Your task to perform on an android device: create a new album in the google photos Image 0: 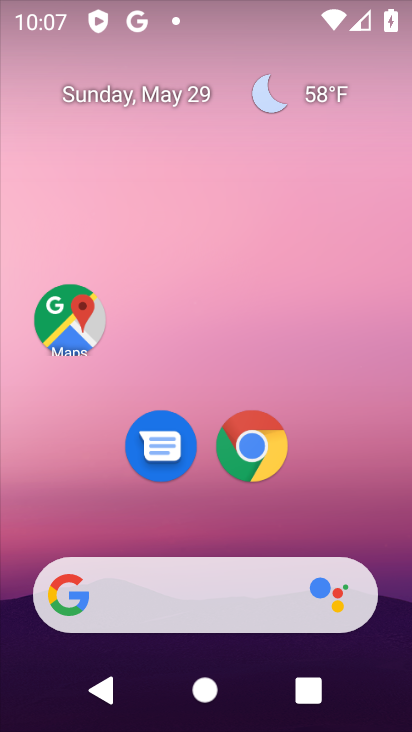
Step 0: drag from (347, 517) to (223, 28)
Your task to perform on an android device: create a new album in the google photos Image 1: 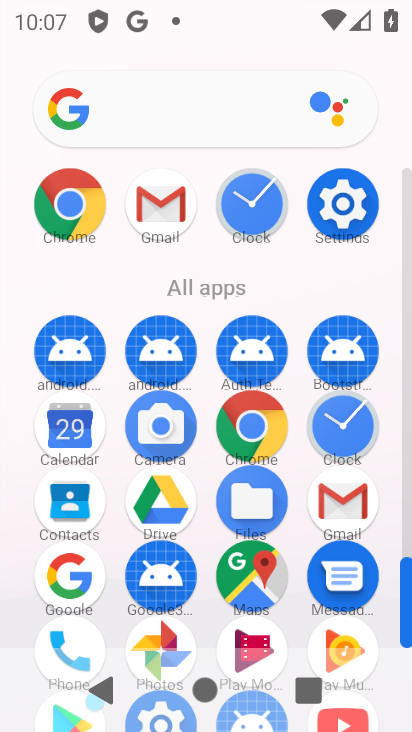
Step 1: drag from (8, 519) to (20, 250)
Your task to perform on an android device: create a new album in the google photos Image 2: 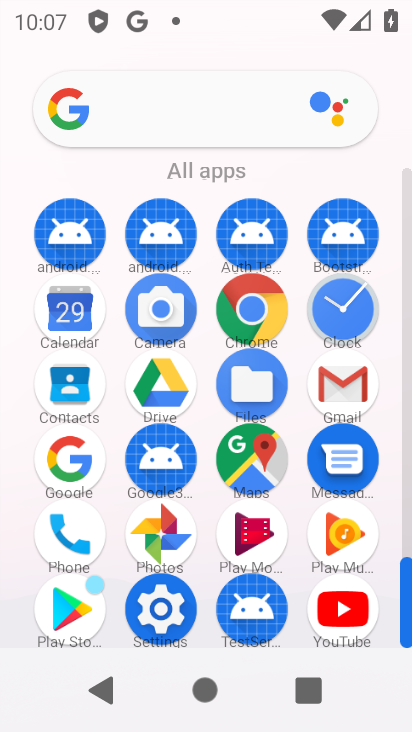
Step 2: click (158, 527)
Your task to perform on an android device: create a new album in the google photos Image 3: 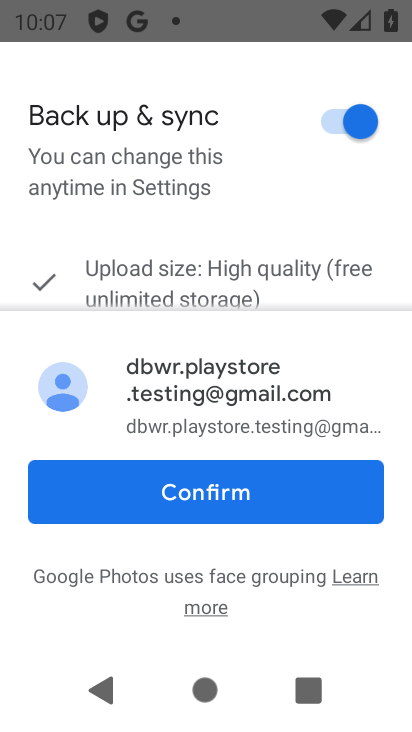
Step 3: click (195, 483)
Your task to perform on an android device: create a new album in the google photos Image 4: 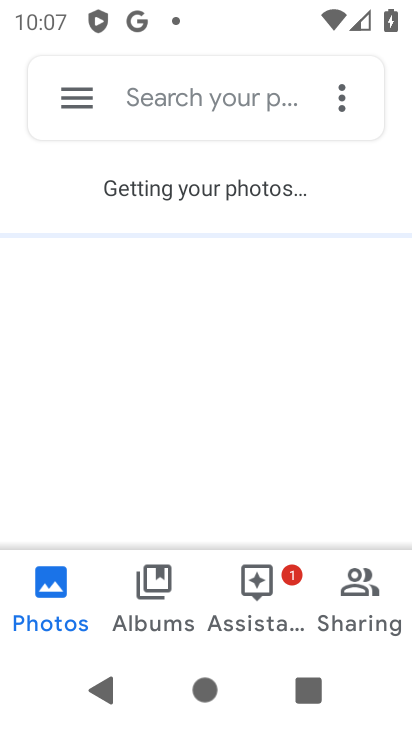
Step 4: drag from (277, 233) to (279, 442)
Your task to perform on an android device: create a new album in the google photos Image 5: 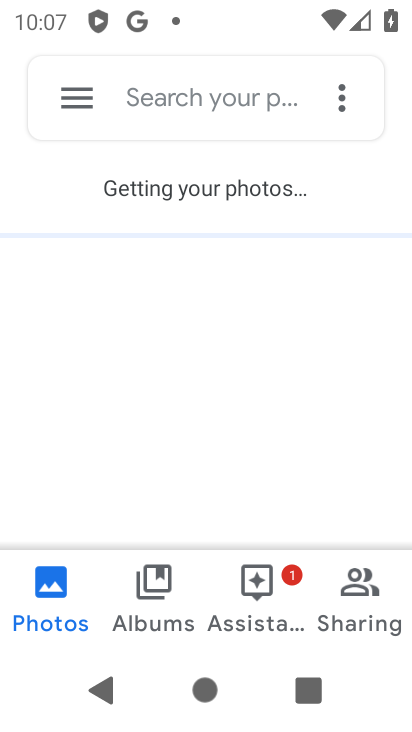
Step 5: drag from (279, 424) to (286, 215)
Your task to perform on an android device: create a new album in the google photos Image 6: 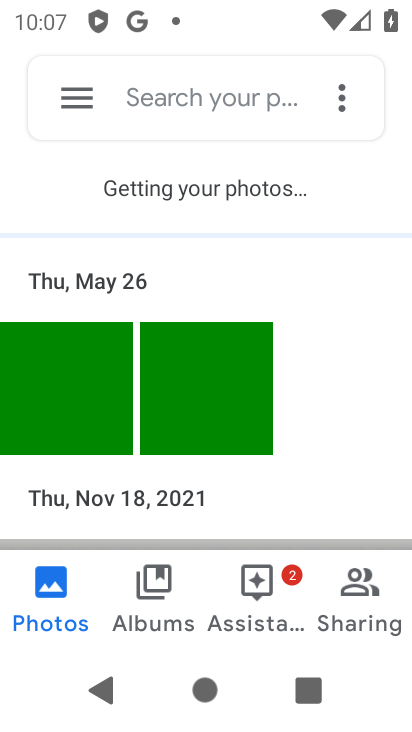
Step 6: click (187, 362)
Your task to perform on an android device: create a new album in the google photos Image 7: 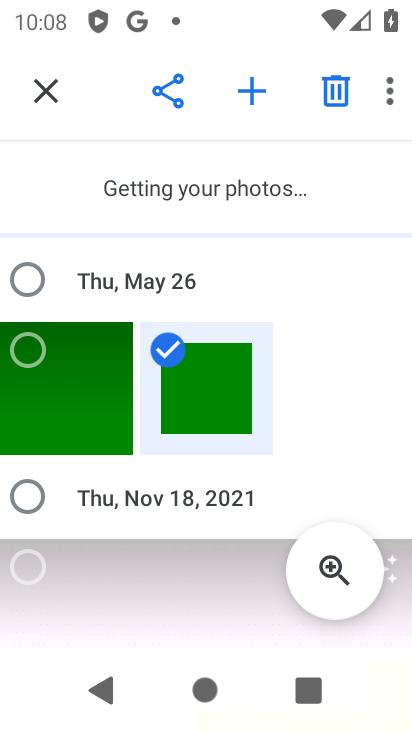
Step 7: click (262, 77)
Your task to perform on an android device: create a new album in the google photos Image 8: 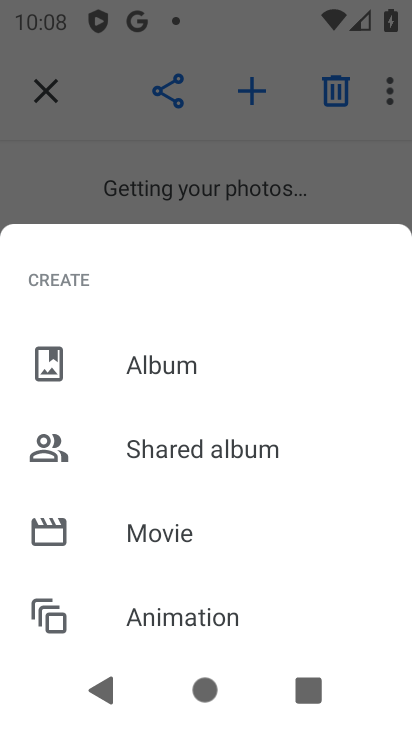
Step 8: click (151, 368)
Your task to perform on an android device: create a new album in the google photos Image 9: 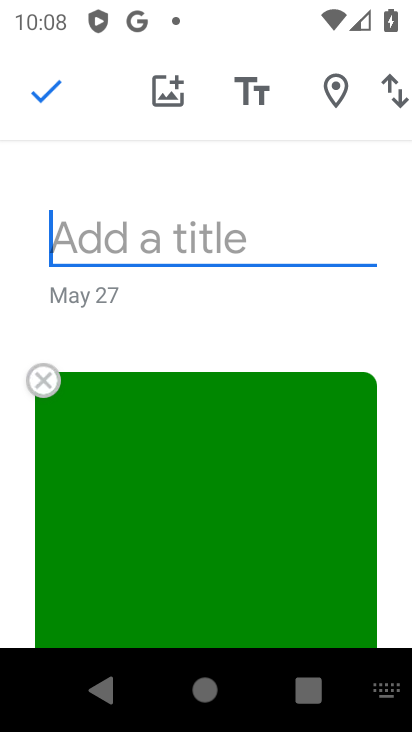
Step 9: type "Sxcvb"
Your task to perform on an android device: create a new album in the google photos Image 10: 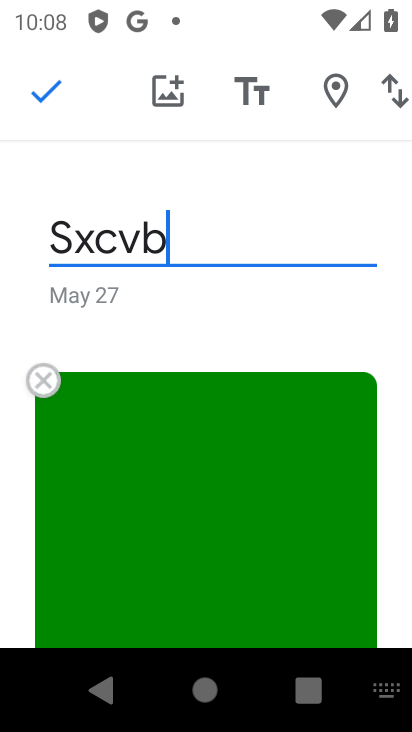
Step 10: type ""
Your task to perform on an android device: create a new album in the google photos Image 11: 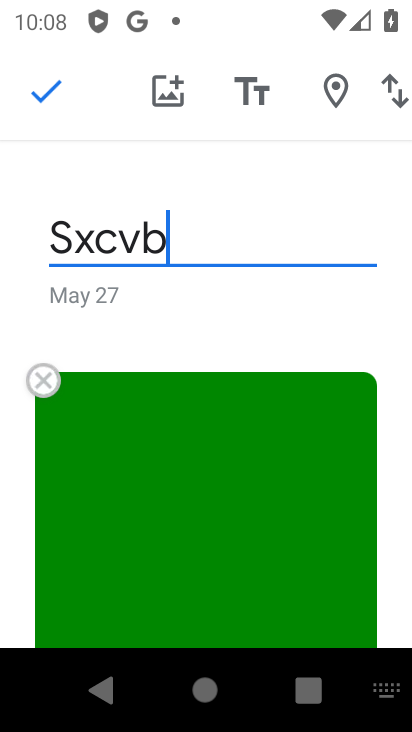
Step 11: click (52, 74)
Your task to perform on an android device: create a new album in the google photos Image 12: 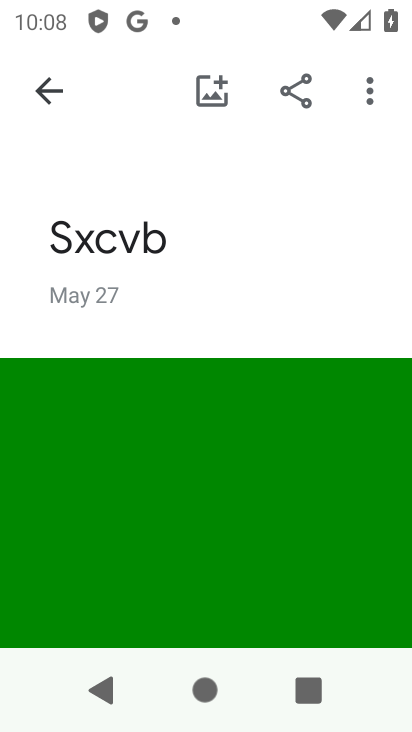
Step 12: task complete